Your task to perform on an android device: Go to eBay Image 0: 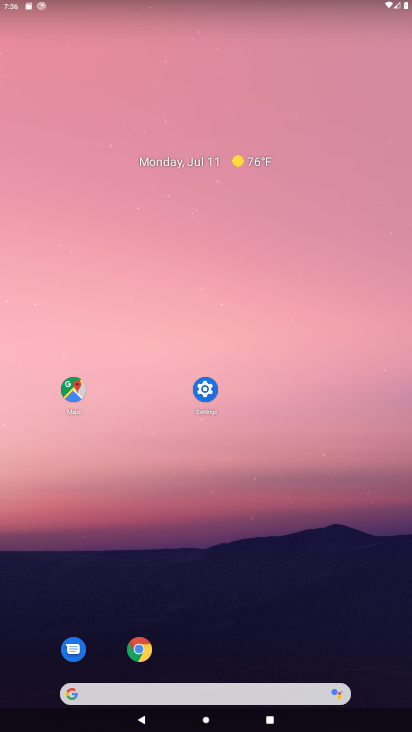
Step 0: click (133, 643)
Your task to perform on an android device: Go to eBay Image 1: 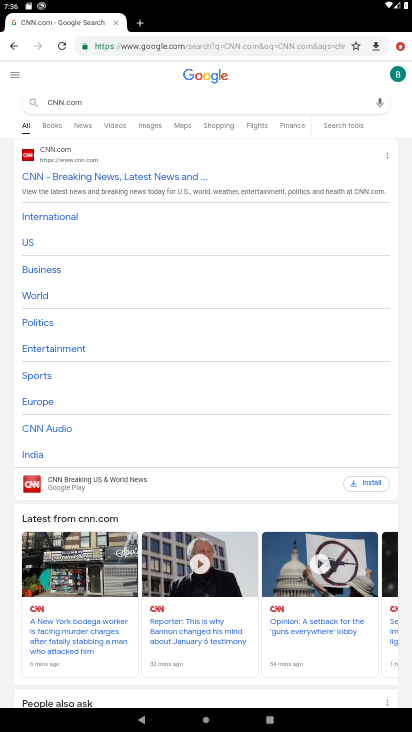
Step 1: click (140, 102)
Your task to perform on an android device: Go to eBay Image 2: 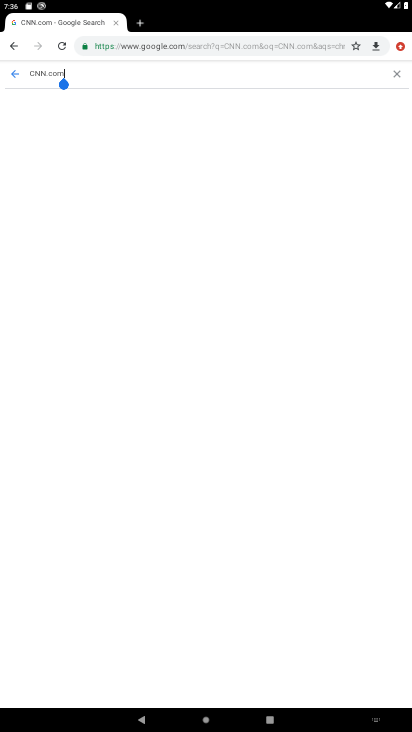
Step 2: click (393, 76)
Your task to perform on an android device: Go to eBay Image 3: 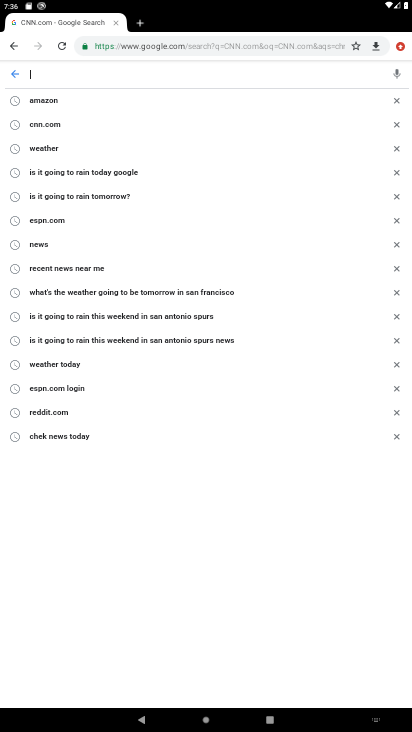
Step 3: click (338, 39)
Your task to perform on an android device: Go to eBay Image 4: 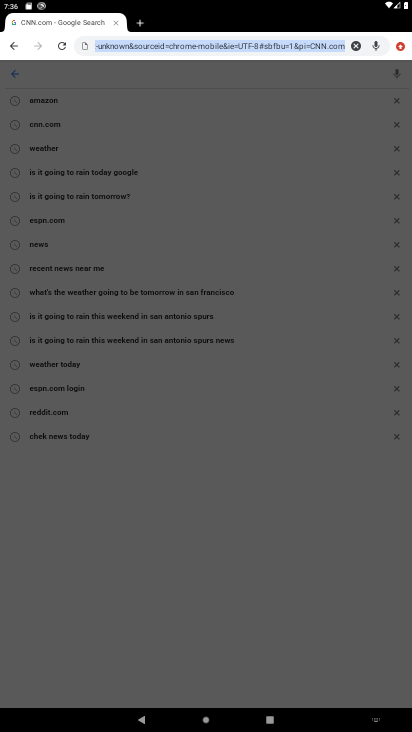
Step 4: click (358, 50)
Your task to perform on an android device: Go to eBay Image 5: 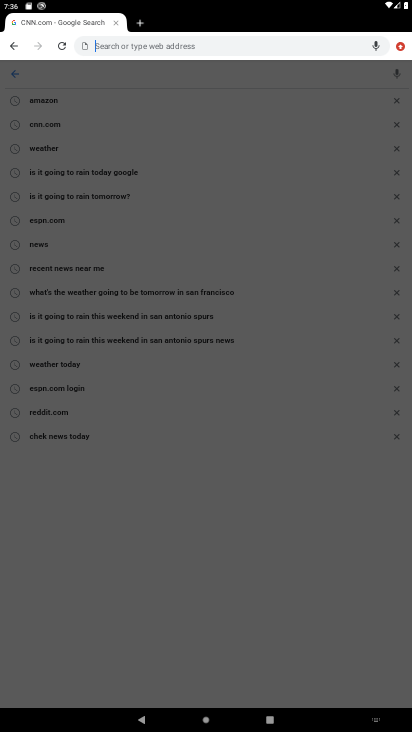
Step 5: type "eBay"
Your task to perform on an android device: Go to eBay Image 6: 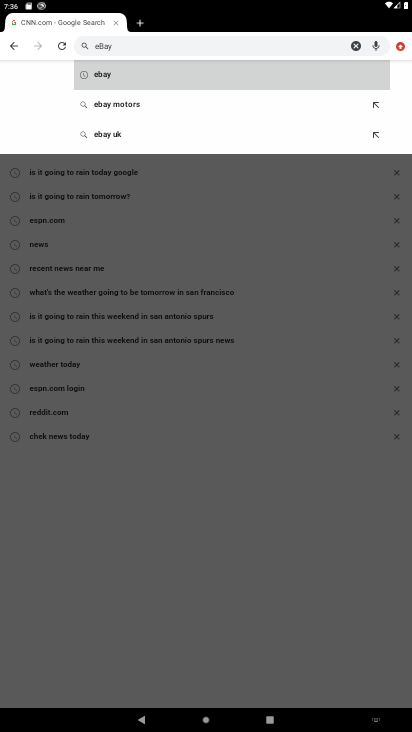
Step 6: click (120, 68)
Your task to perform on an android device: Go to eBay Image 7: 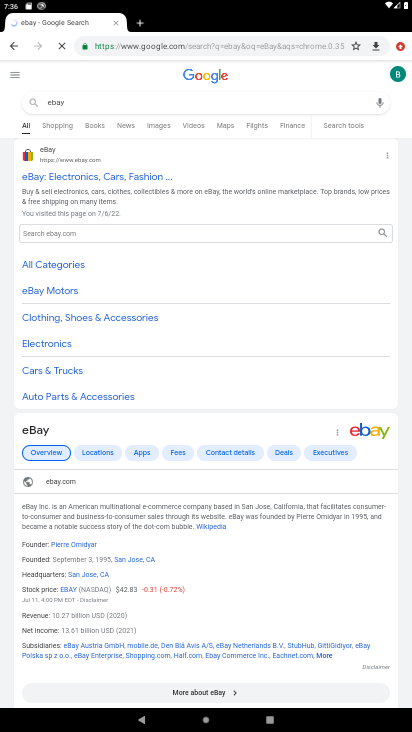
Step 7: task complete